Your task to perform on an android device: turn off wifi Image 0: 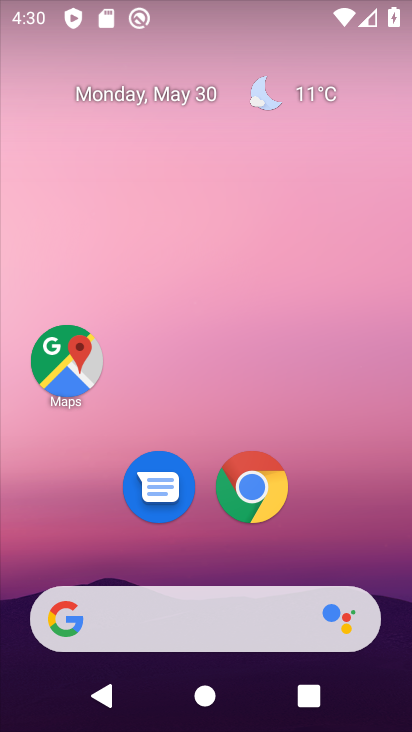
Step 0: drag from (406, 624) to (298, 76)
Your task to perform on an android device: turn off wifi Image 1: 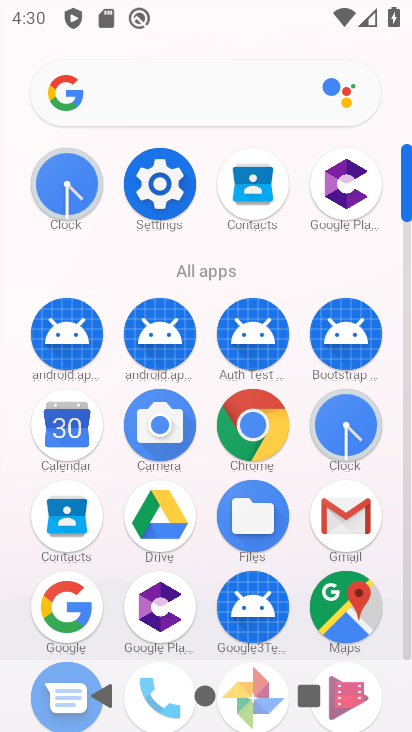
Step 1: click (407, 642)
Your task to perform on an android device: turn off wifi Image 2: 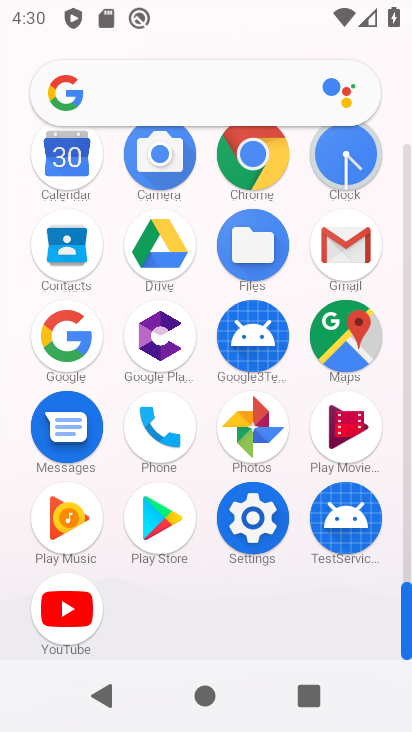
Step 2: click (249, 517)
Your task to perform on an android device: turn off wifi Image 3: 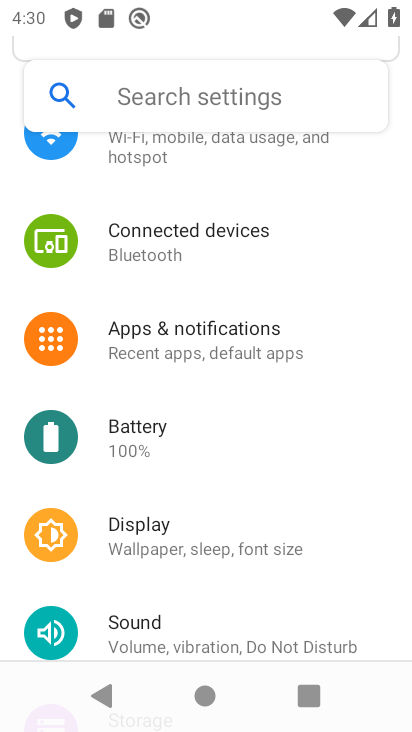
Step 3: drag from (351, 232) to (347, 497)
Your task to perform on an android device: turn off wifi Image 4: 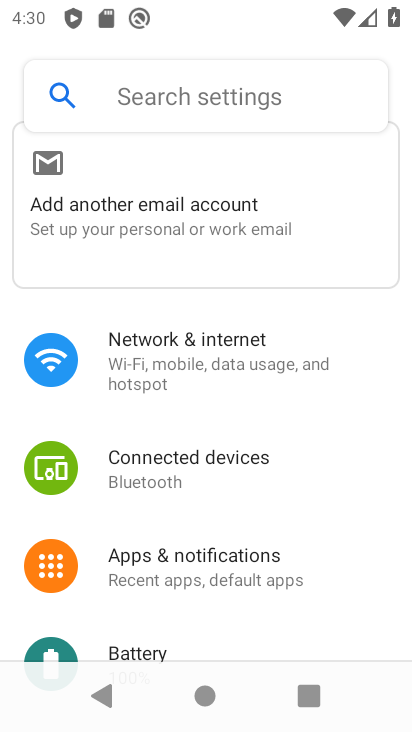
Step 4: click (160, 362)
Your task to perform on an android device: turn off wifi Image 5: 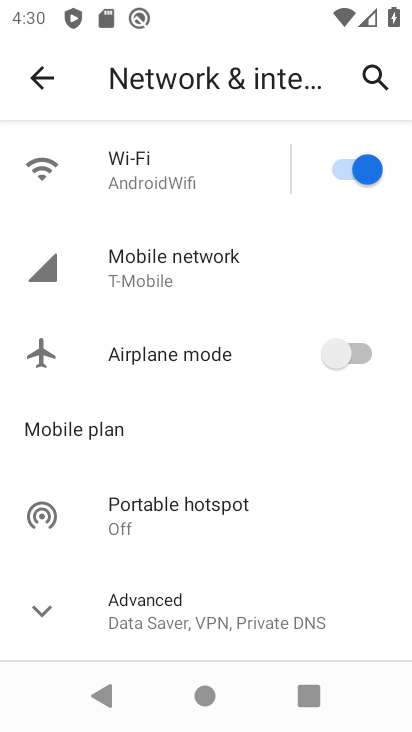
Step 5: click (340, 164)
Your task to perform on an android device: turn off wifi Image 6: 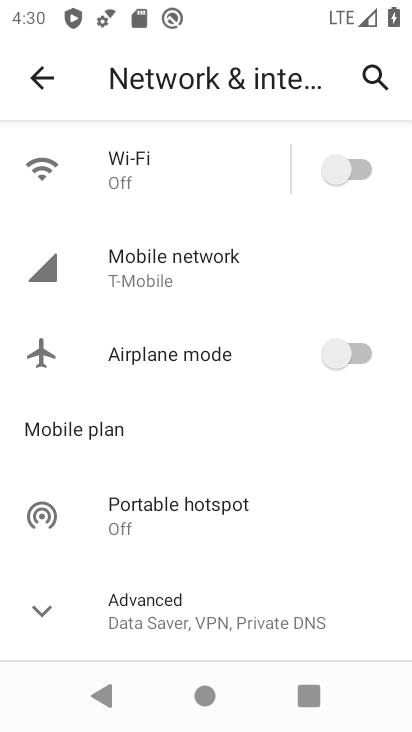
Step 6: task complete